Your task to perform on an android device: delete the emails in spam in the gmail app Image 0: 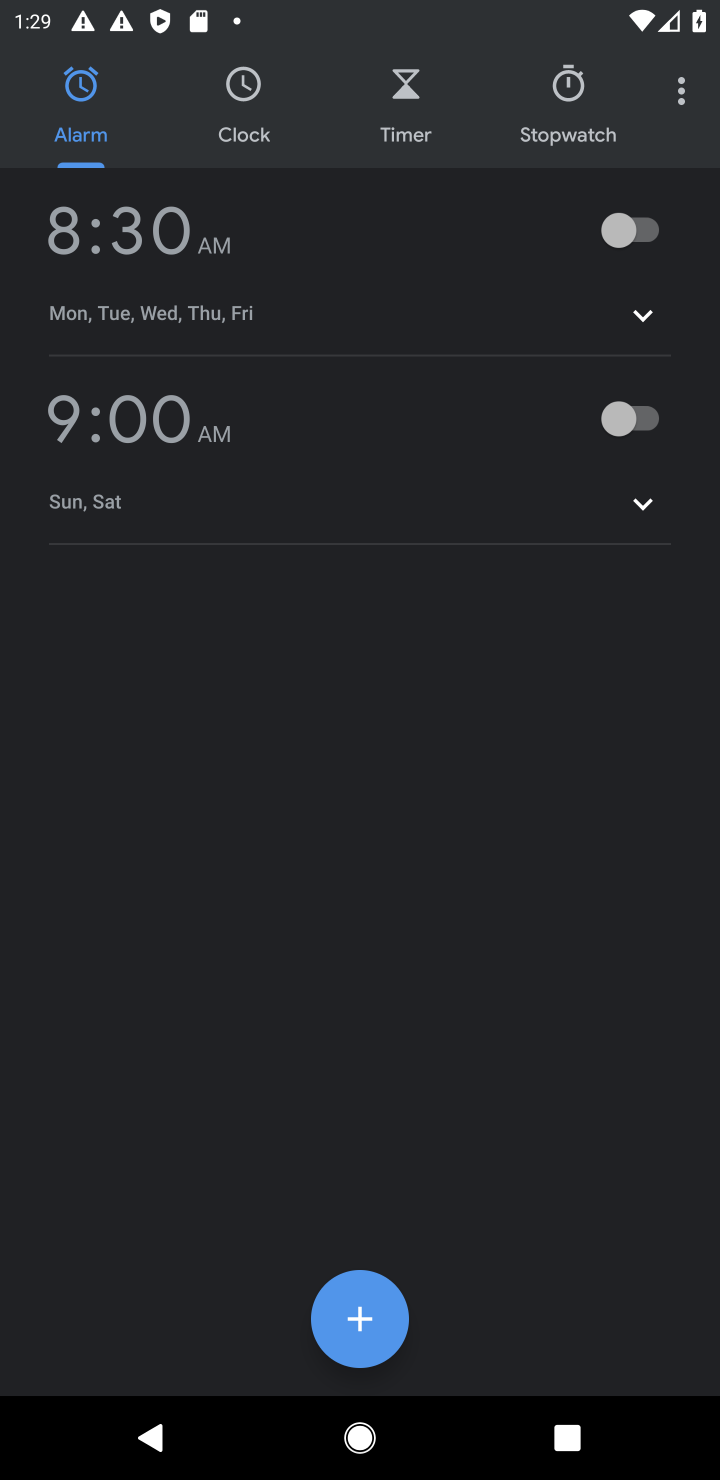
Step 0: press home button
Your task to perform on an android device: delete the emails in spam in the gmail app Image 1: 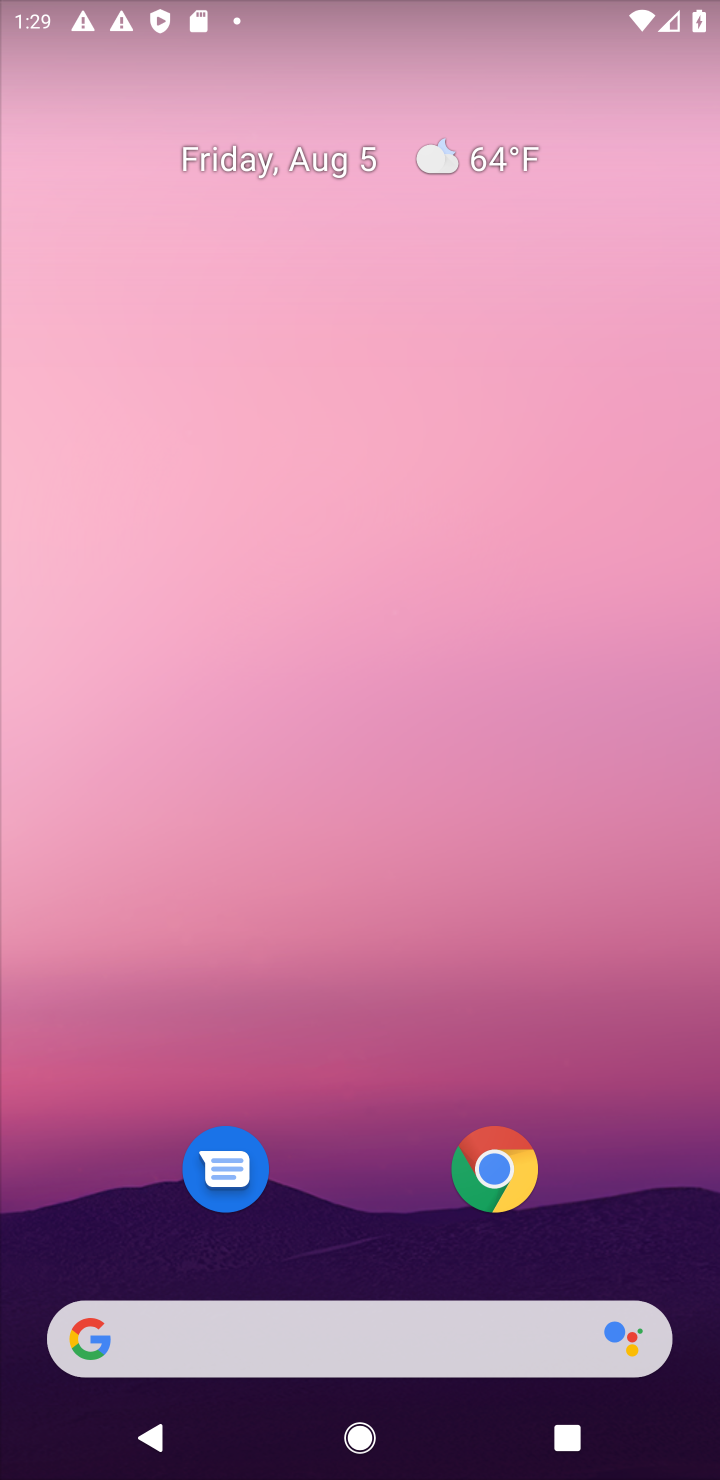
Step 1: drag from (318, 958) to (262, 506)
Your task to perform on an android device: delete the emails in spam in the gmail app Image 2: 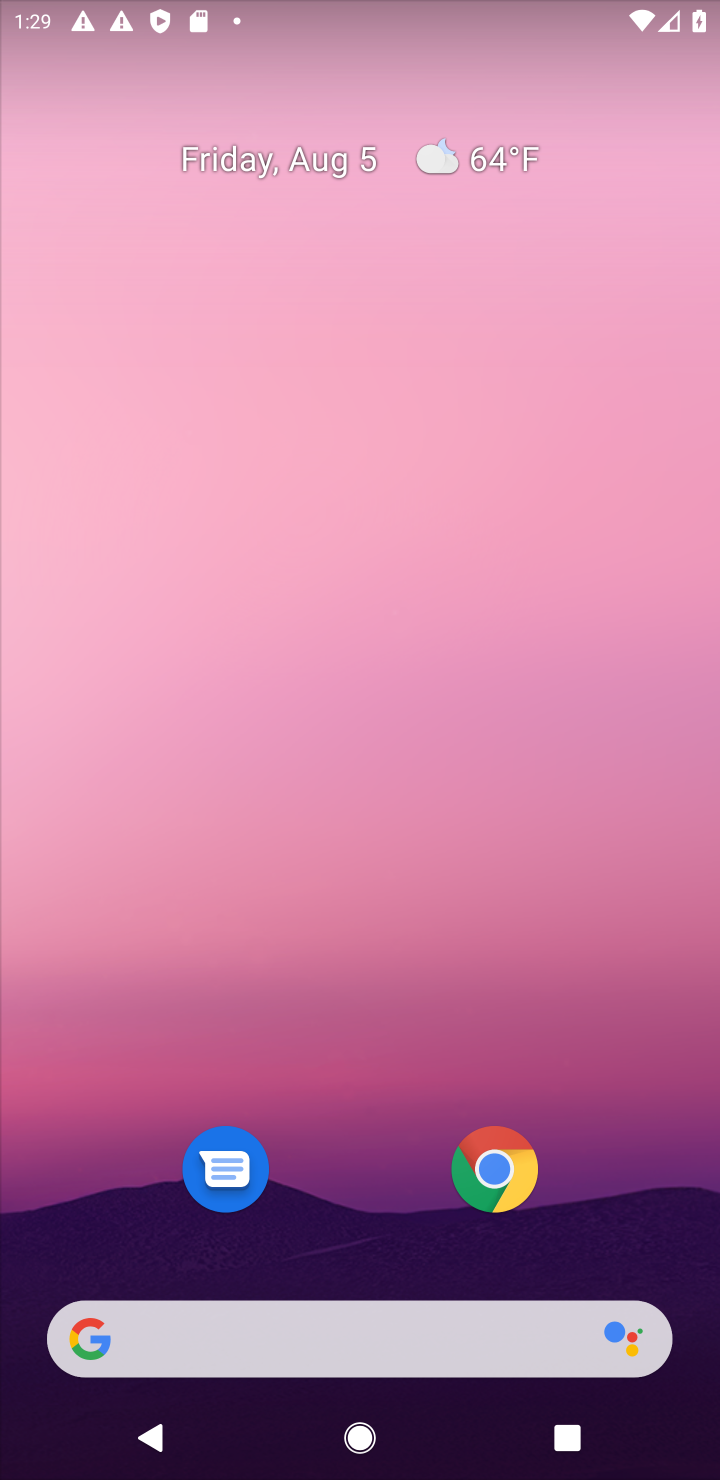
Step 2: drag from (338, 1170) to (338, 110)
Your task to perform on an android device: delete the emails in spam in the gmail app Image 3: 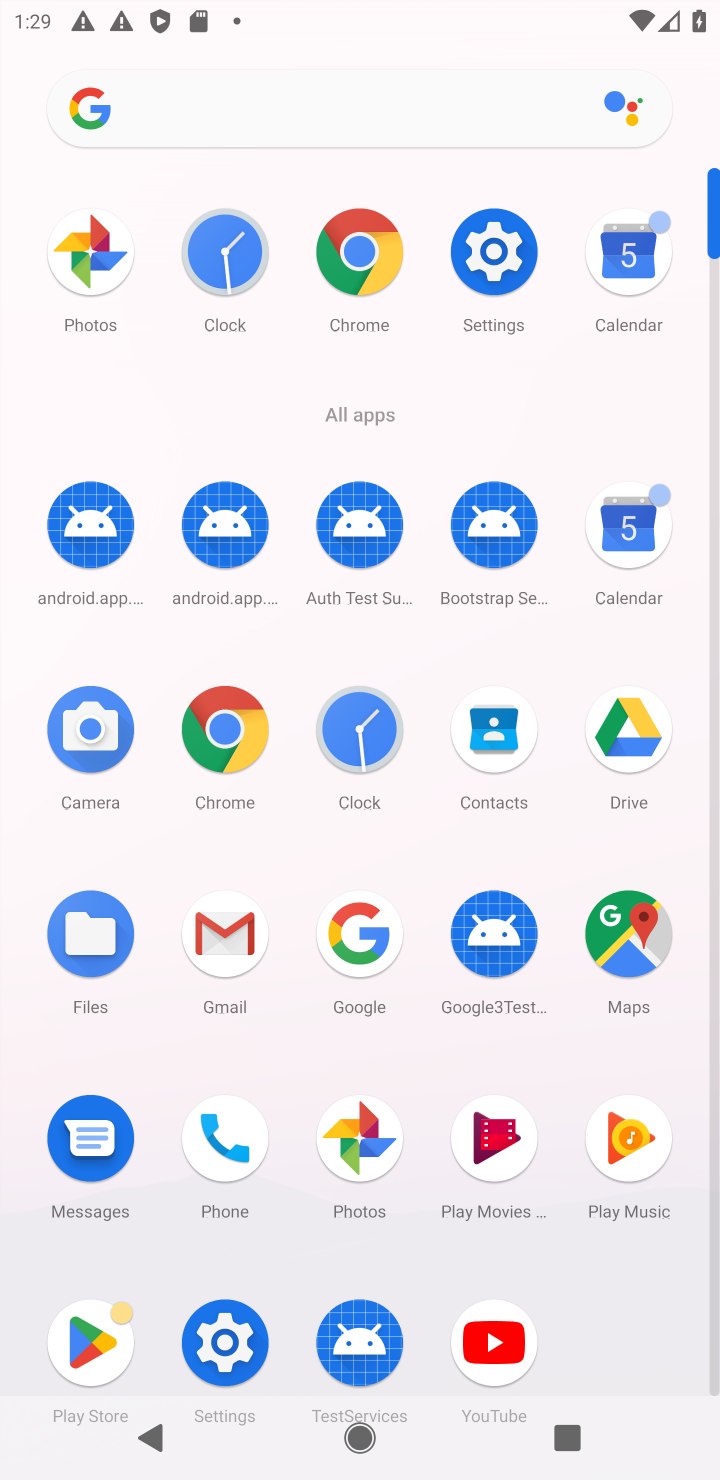
Step 3: click (255, 958)
Your task to perform on an android device: delete the emails in spam in the gmail app Image 4: 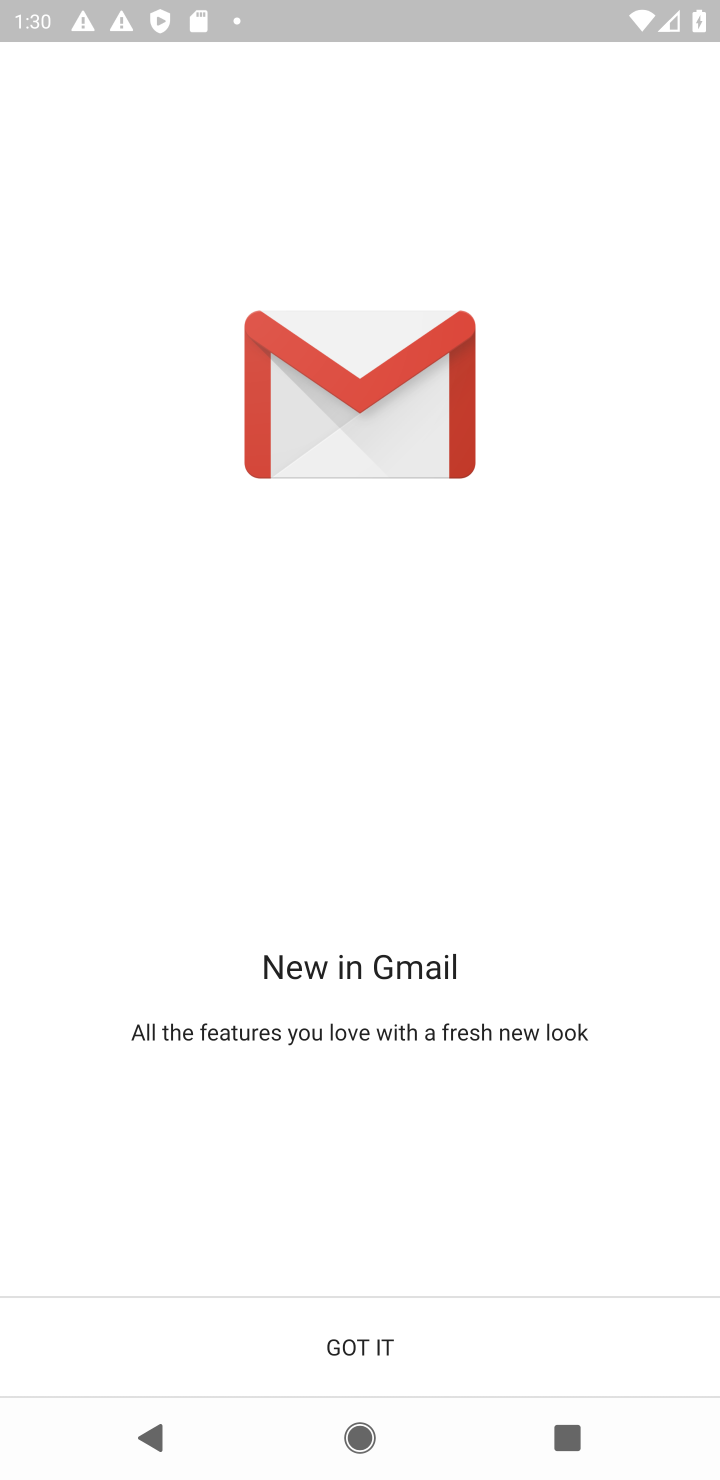
Step 4: click (623, 1305)
Your task to perform on an android device: delete the emails in spam in the gmail app Image 5: 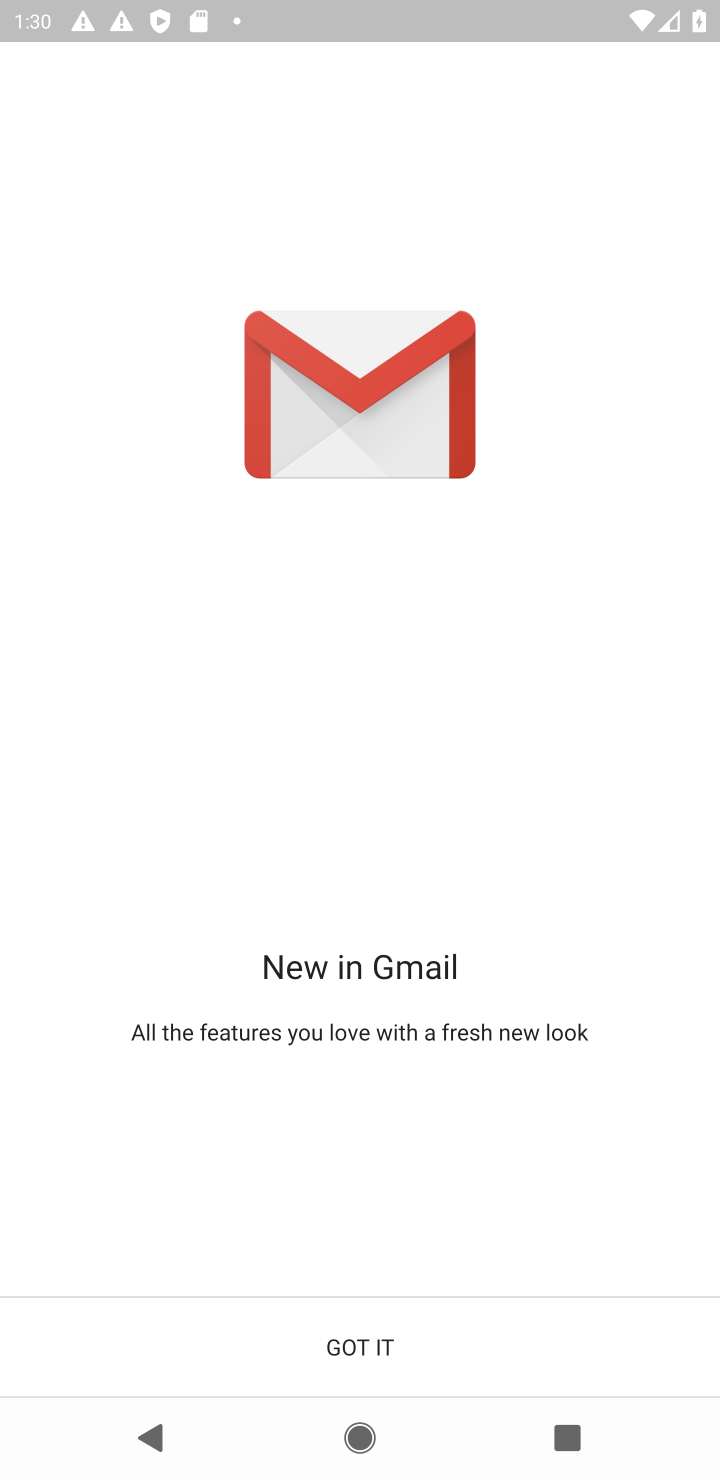
Step 5: click (596, 1337)
Your task to perform on an android device: delete the emails in spam in the gmail app Image 6: 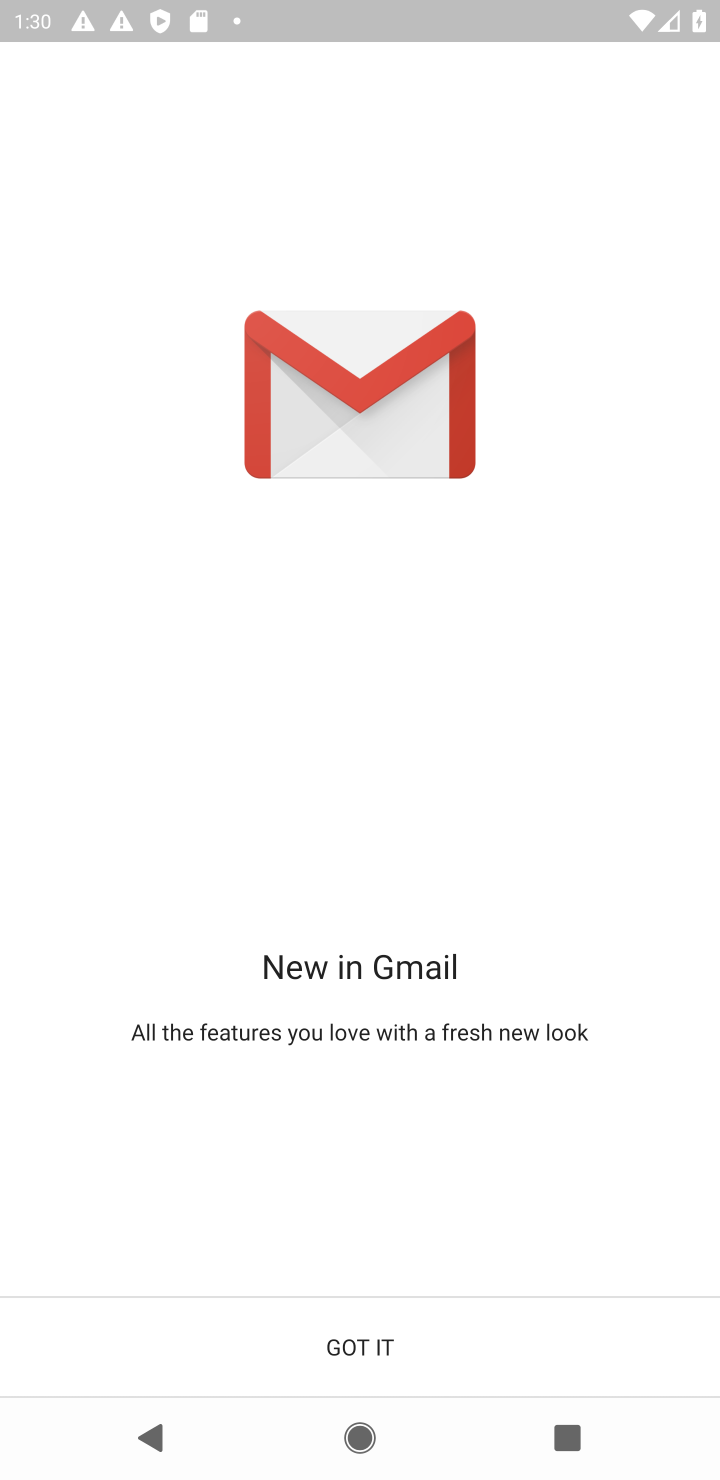
Step 6: click (440, 1329)
Your task to perform on an android device: delete the emails in spam in the gmail app Image 7: 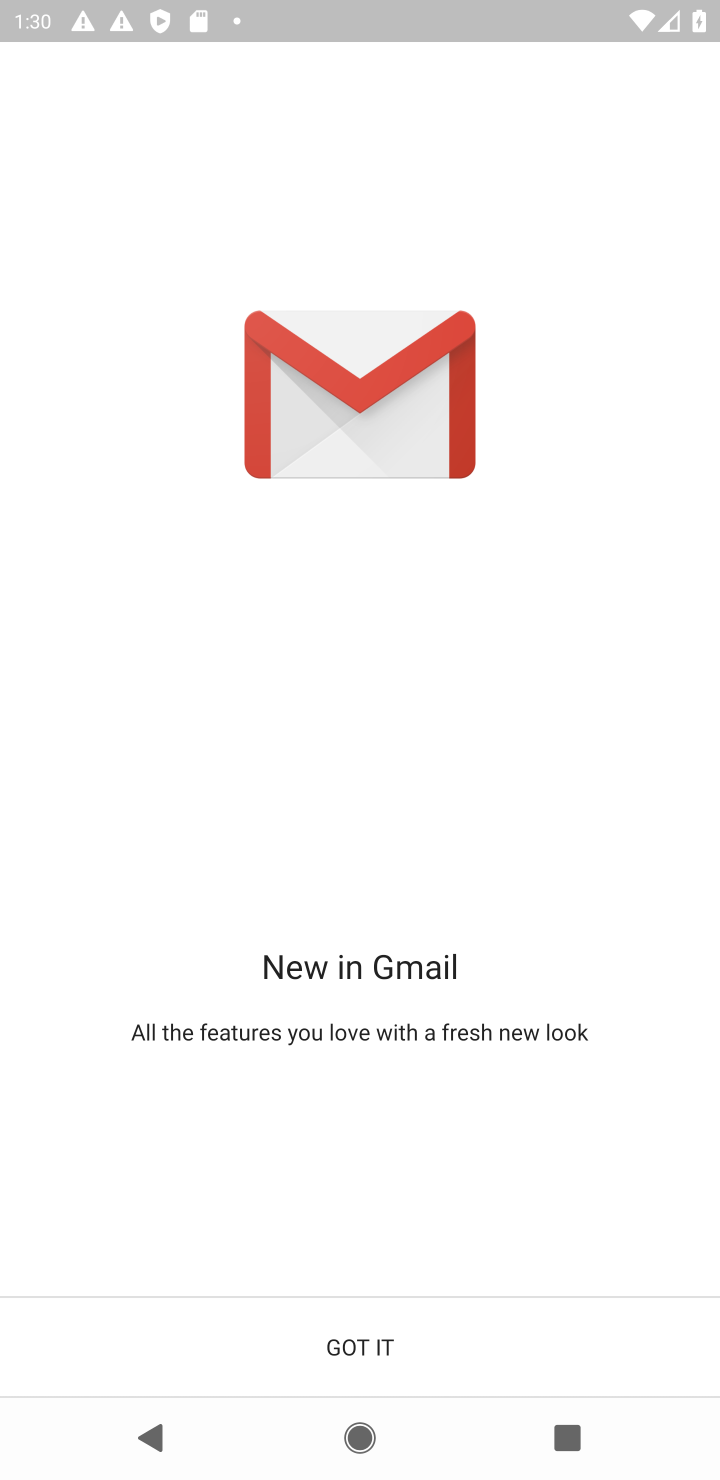
Step 7: click (440, 1329)
Your task to perform on an android device: delete the emails in spam in the gmail app Image 8: 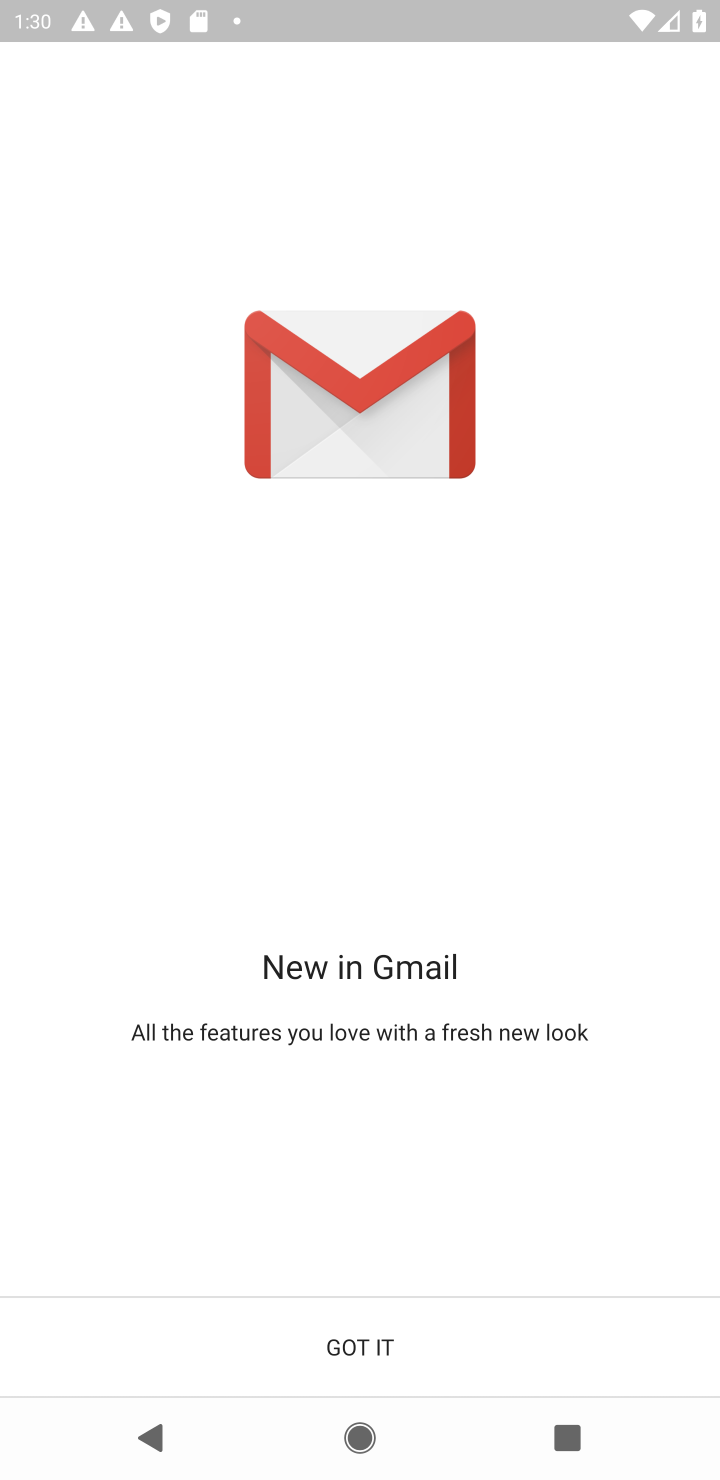
Step 8: click (440, 1329)
Your task to perform on an android device: delete the emails in spam in the gmail app Image 9: 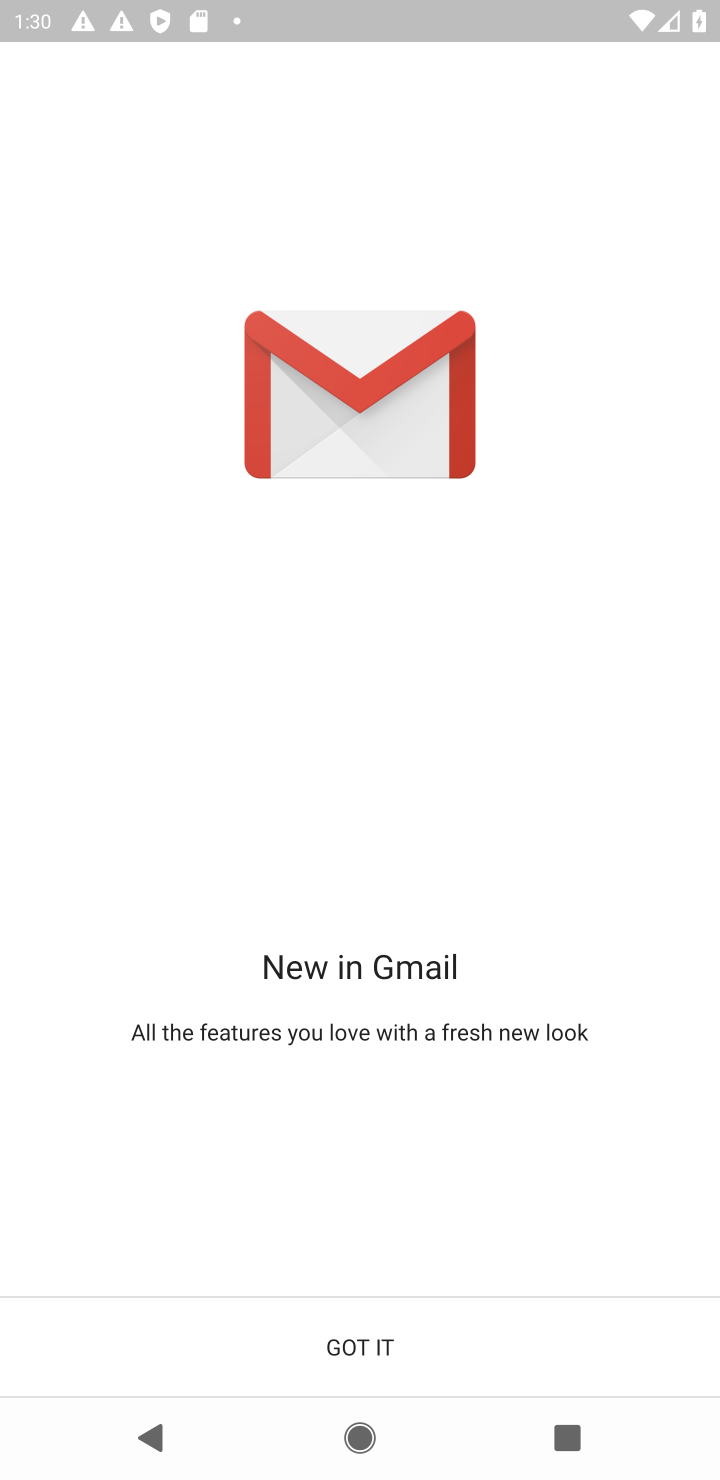
Step 9: click (440, 1329)
Your task to perform on an android device: delete the emails in spam in the gmail app Image 10: 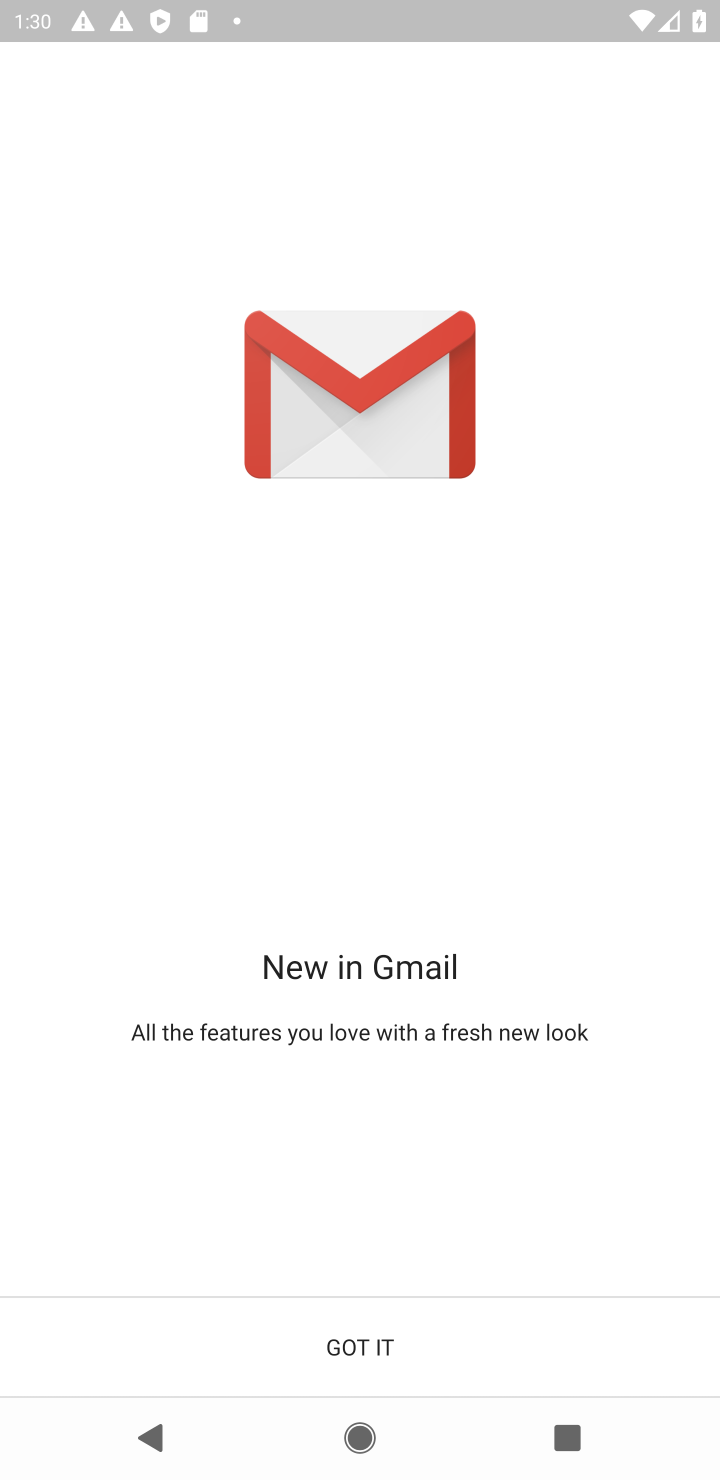
Step 10: click (440, 1329)
Your task to perform on an android device: delete the emails in spam in the gmail app Image 11: 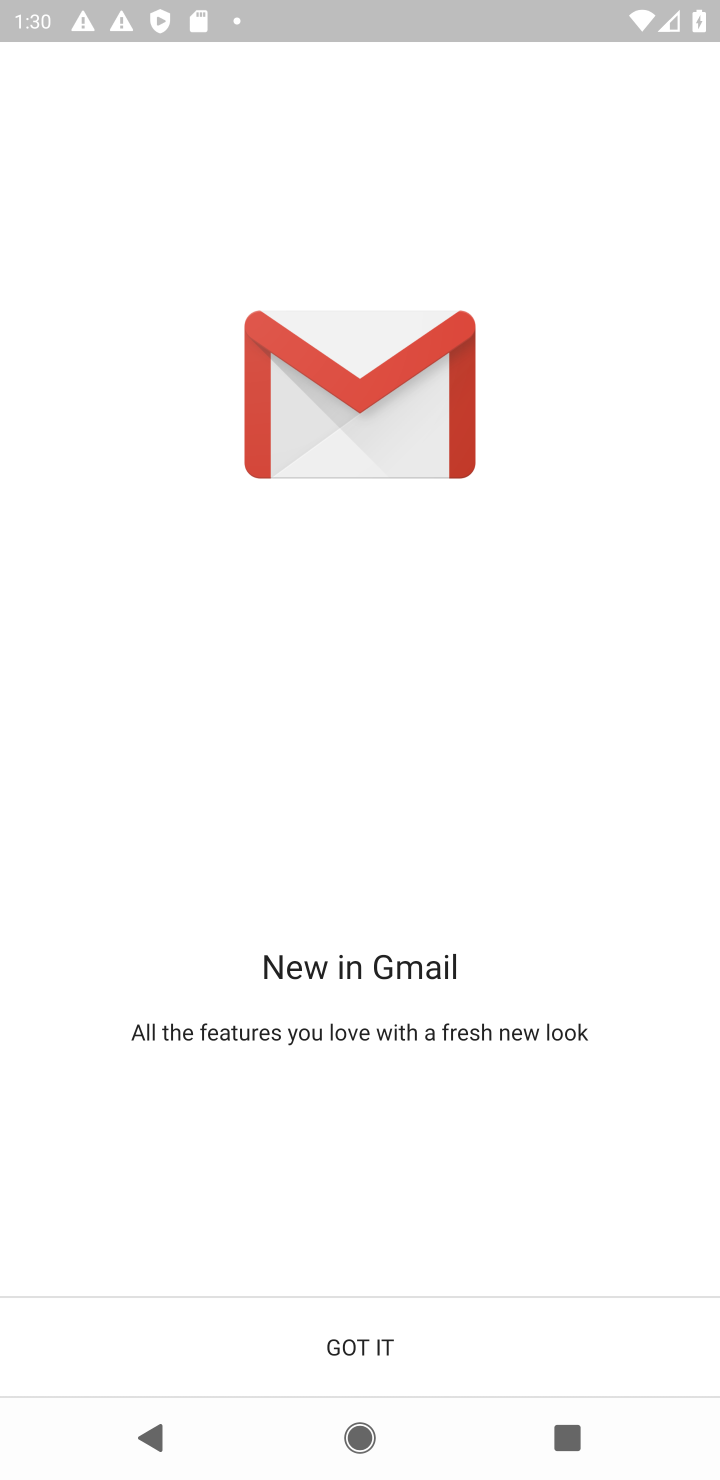
Step 11: task complete